Your task to perform on an android device: find snoozed emails in the gmail app Image 0: 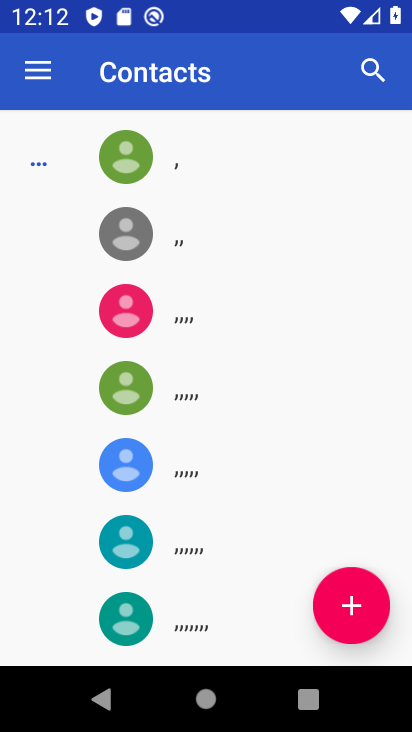
Step 0: press home button
Your task to perform on an android device: find snoozed emails in the gmail app Image 1: 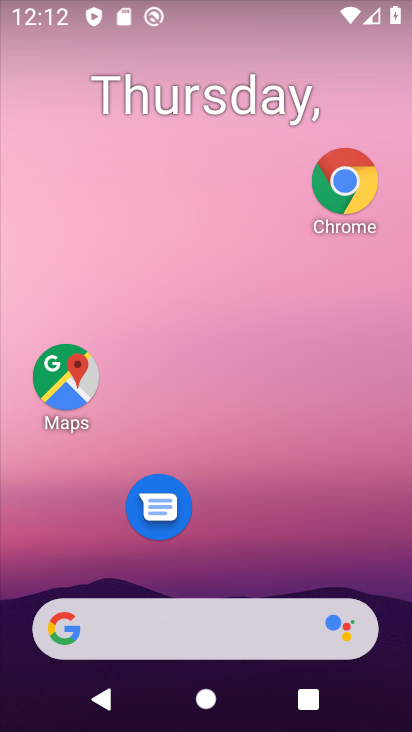
Step 1: drag from (167, 501) to (212, 183)
Your task to perform on an android device: find snoozed emails in the gmail app Image 2: 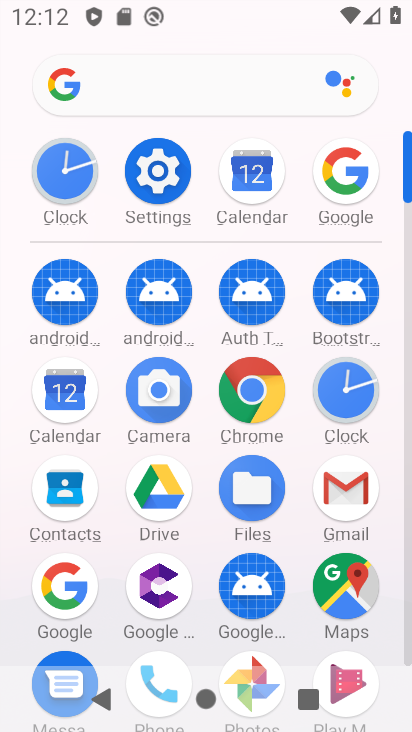
Step 2: click (338, 493)
Your task to perform on an android device: find snoozed emails in the gmail app Image 3: 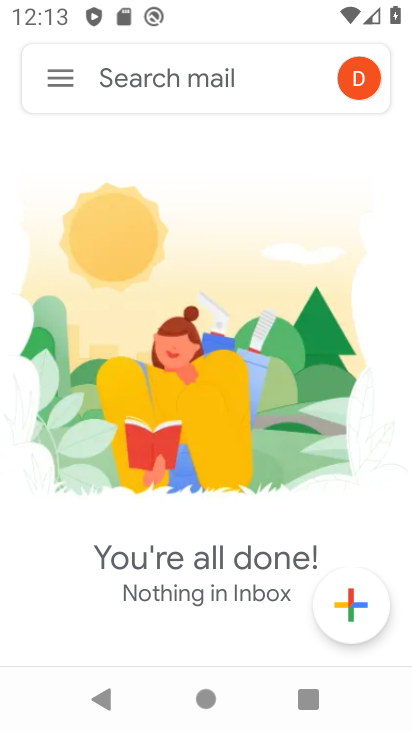
Step 3: click (49, 82)
Your task to perform on an android device: find snoozed emails in the gmail app Image 4: 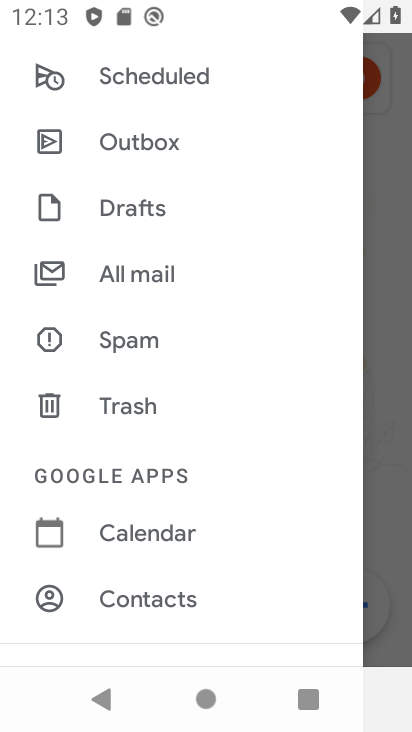
Step 4: drag from (107, 104) to (47, 83)
Your task to perform on an android device: find snoozed emails in the gmail app Image 5: 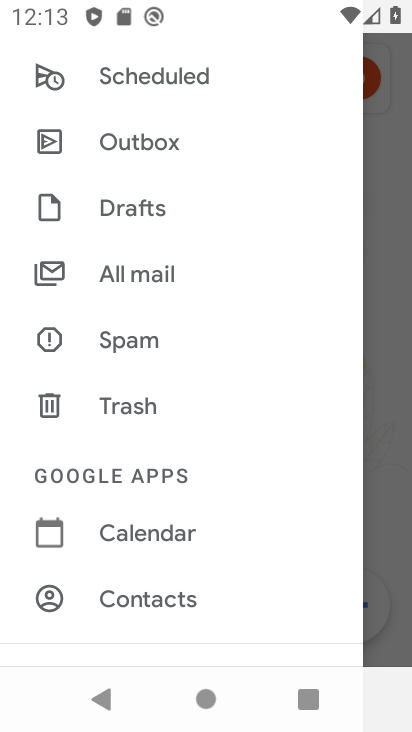
Step 5: drag from (142, 374) to (148, 628)
Your task to perform on an android device: find snoozed emails in the gmail app Image 6: 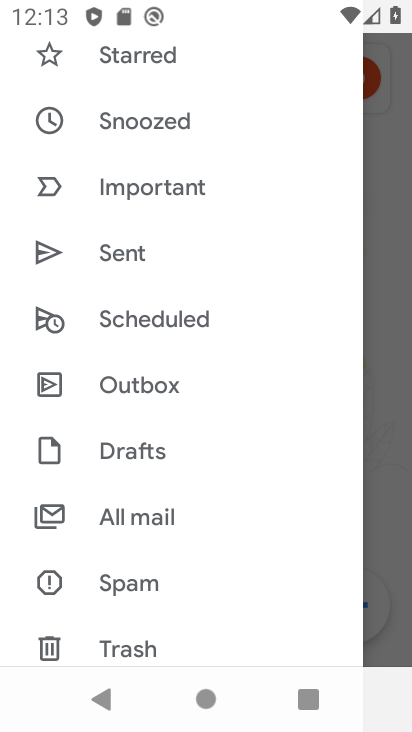
Step 6: click (175, 117)
Your task to perform on an android device: find snoozed emails in the gmail app Image 7: 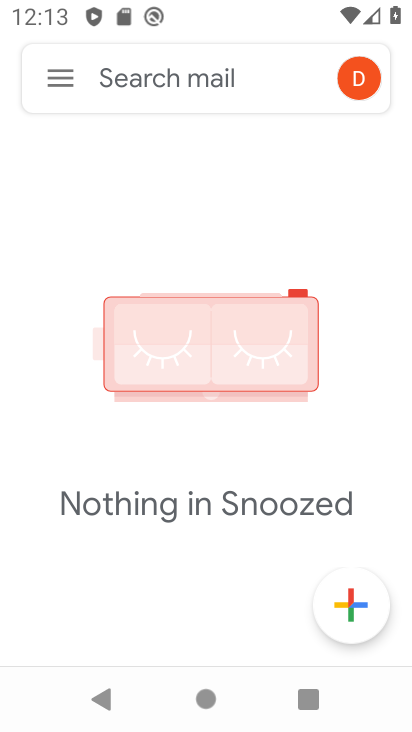
Step 7: task complete